Your task to perform on an android device: turn vacation reply on in the gmail app Image 0: 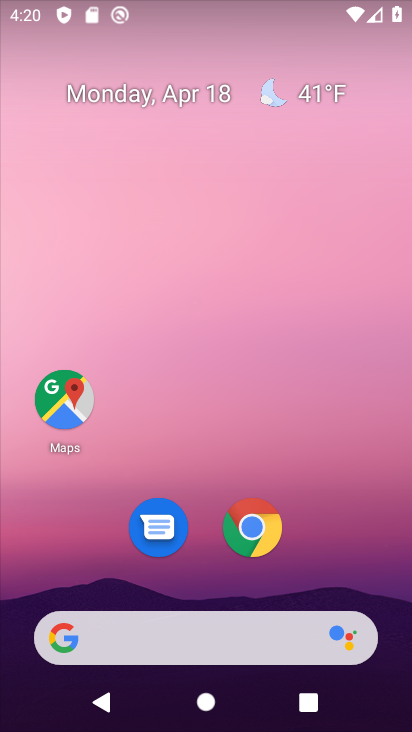
Step 0: drag from (290, 309) to (275, 144)
Your task to perform on an android device: turn vacation reply on in the gmail app Image 1: 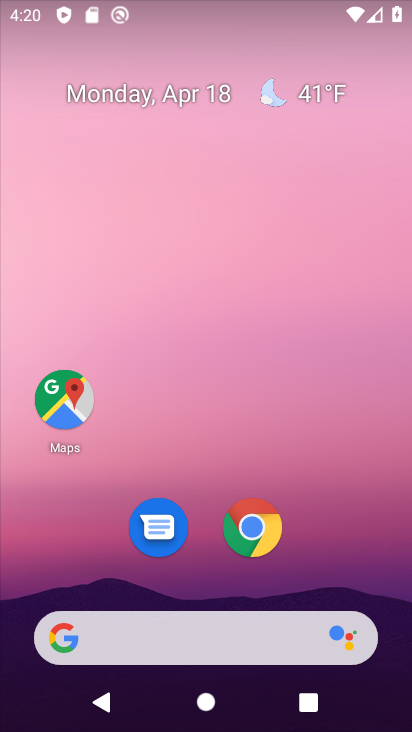
Step 1: drag from (332, 566) to (249, 179)
Your task to perform on an android device: turn vacation reply on in the gmail app Image 2: 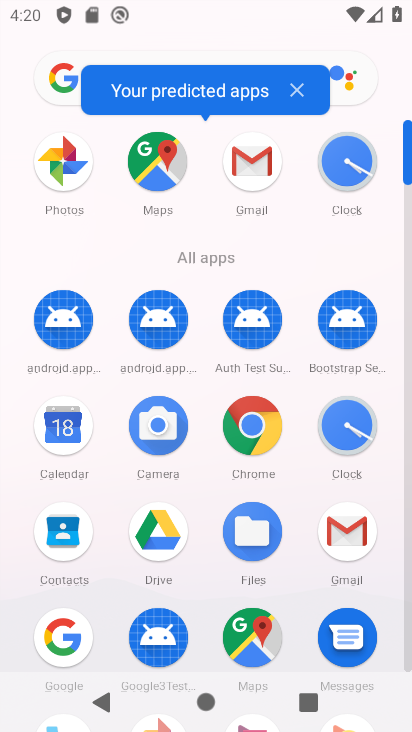
Step 2: click (253, 158)
Your task to perform on an android device: turn vacation reply on in the gmail app Image 3: 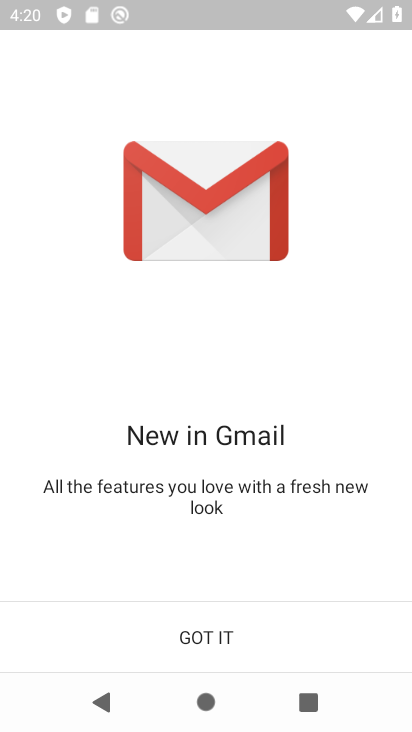
Step 3: click (211, 582)
Your task to perform on an android device: turn vacation reply on in the gmail app Image 4: 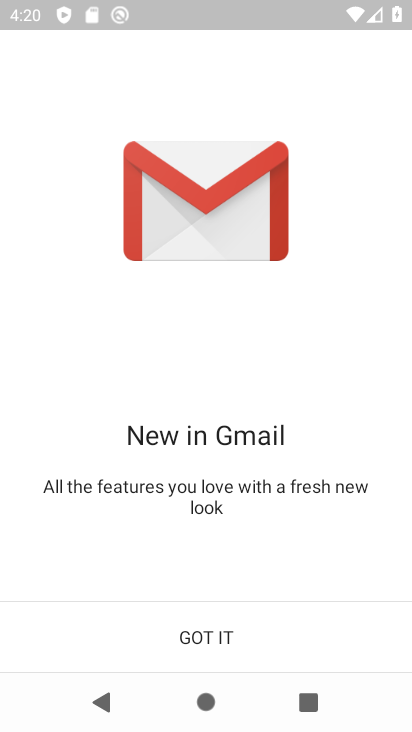
Step 4: click (227, 642)
Your task to perform on an android device: turn vacation reply on in the gmail app Image 5: 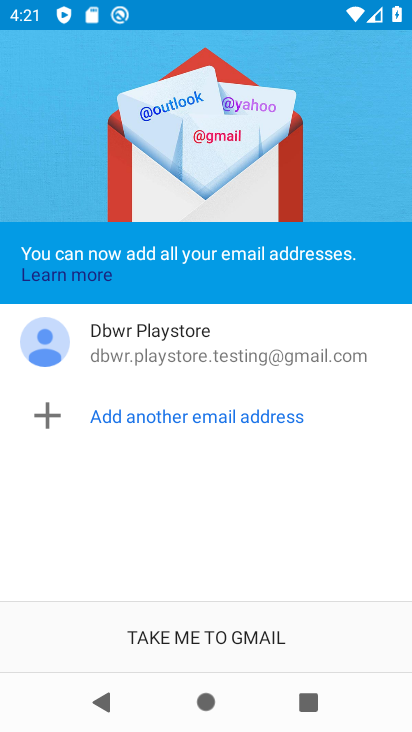
Step 5: click (226, 635)
Your task to perform on an android device: turn vacation reply on in the gmail app Image 6: 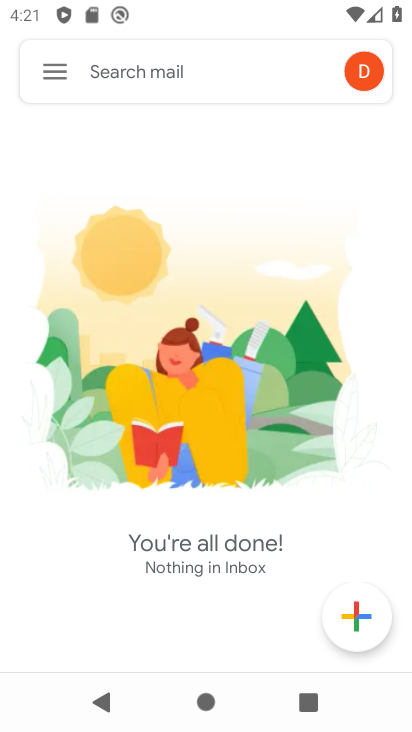
Step 6: click (58, 71)
Your task to perform on an android device: turn vacation reply on in the gmail app Image 7: 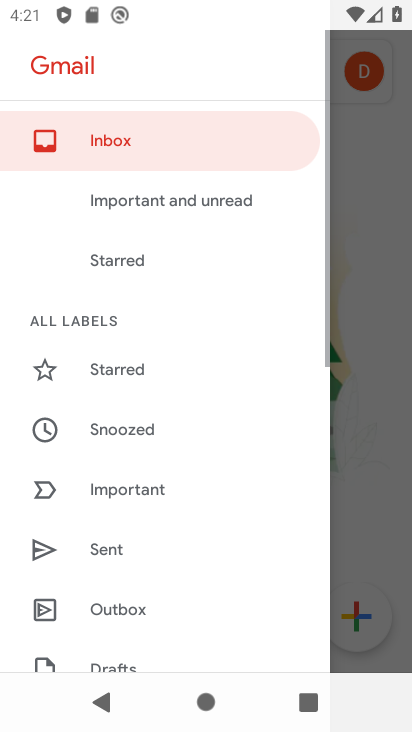
Step 7: drag from (192, 570) to (177, 166)
Your task to perform on an android device: turn vacation reply on in the gmail app Image 8: 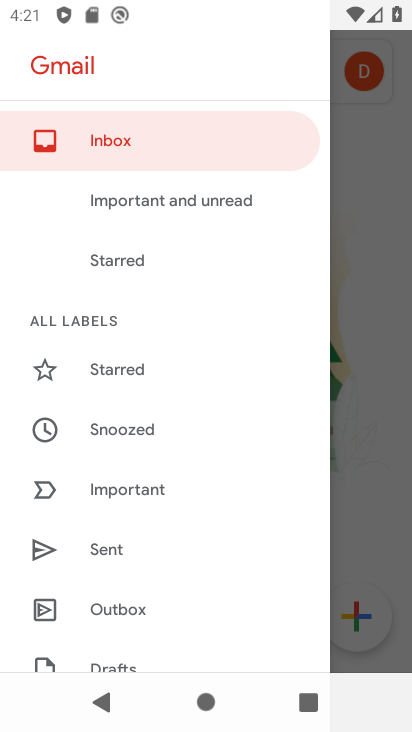
Step 8: drag from (123, 630) to (172, 286)
Your task to perform on an android device: turn vacation reply on in the gmail app Image 9: 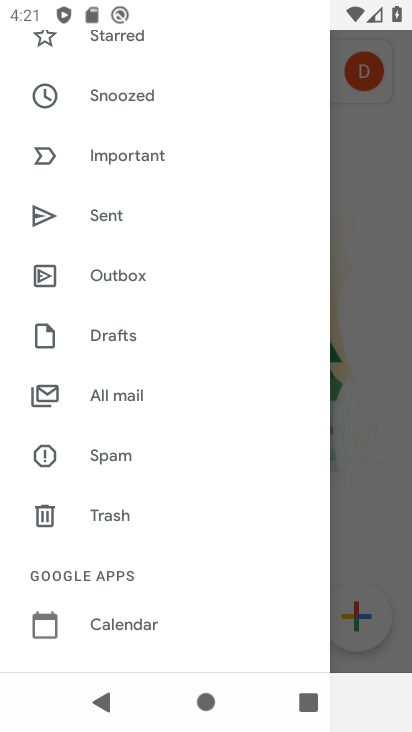
Step 9: drag from (125, 589) to (230, 230)
Your task to perform on an android device: turn vacation reply on in the gmail app Image 10: 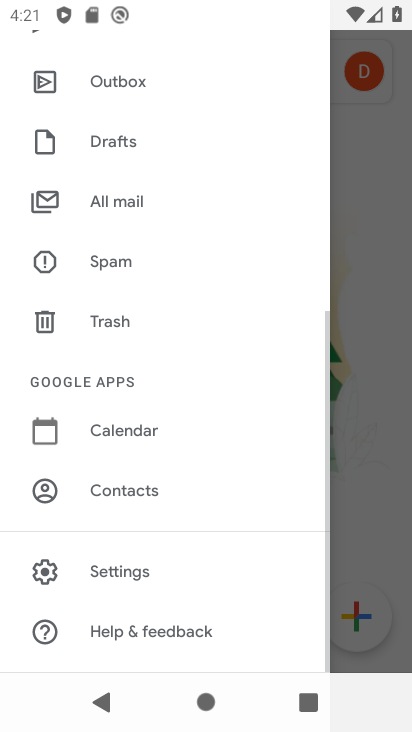
Step 10: click (134, 583)
Your task to perform on an android device: turn vacation reply on in the gmail app Image 11: 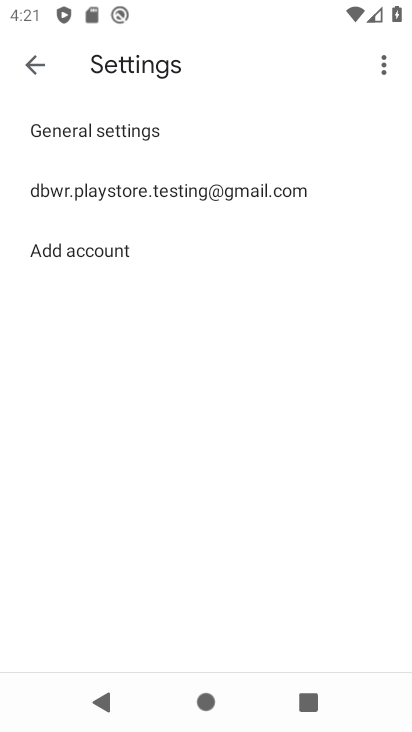
Step 11: click (160, 197)
Your task to perform on an android device: turn vacation reply on in the gmail app Image 12: 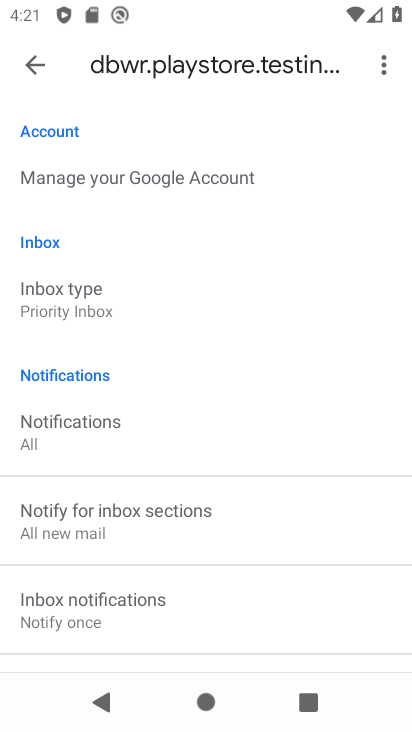
Step 12: drag from (245, 581) to (202, 187)
Your task to perform on an android device: turn vacation reply on in the gmail app Image 13: 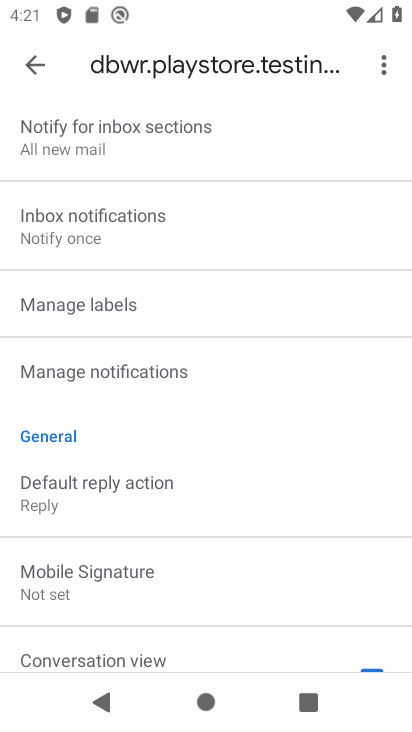
Step 13: drag from (237, 569) to (251, 232)
Your task to perform on an android device: turn vacation reply on in the gmail app Image 14: 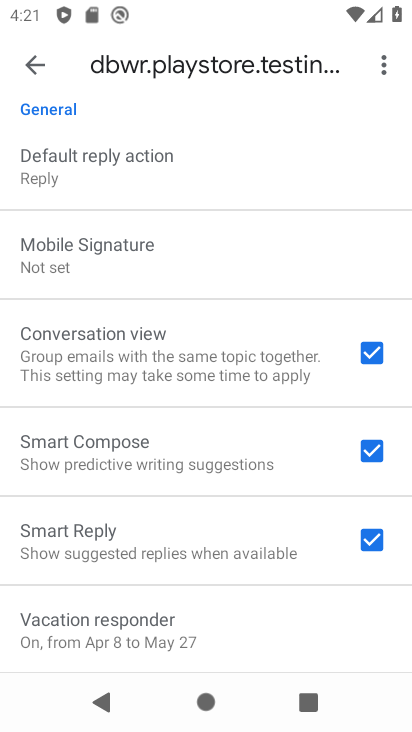
Step 14: click (147, 624)
Your task to perform on an android device: turn vacation reply on in the gmail app Image 15: 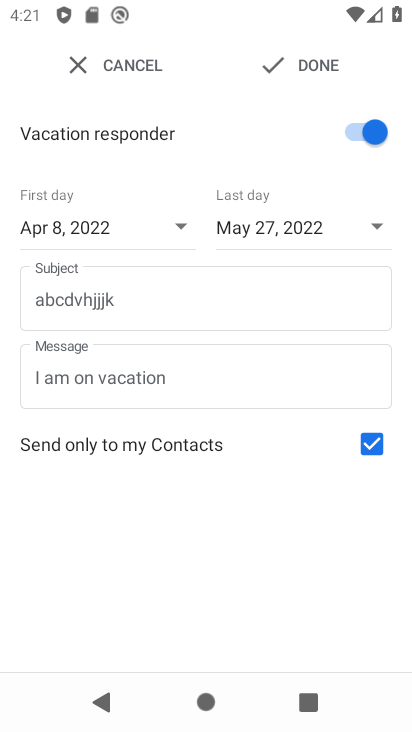
Step 15: task complete